Your task to perform on an android device: What's on my calendar tomorrow? Image 0: 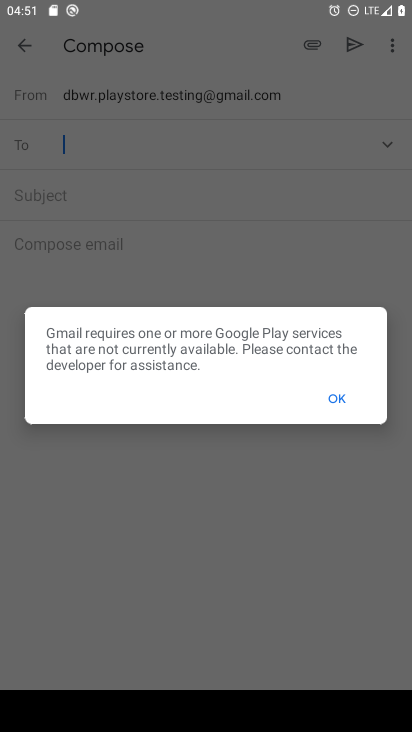
Step 0: press back button
Your task to perform on an android device: What's on my calendar tomorrow? Image 1: 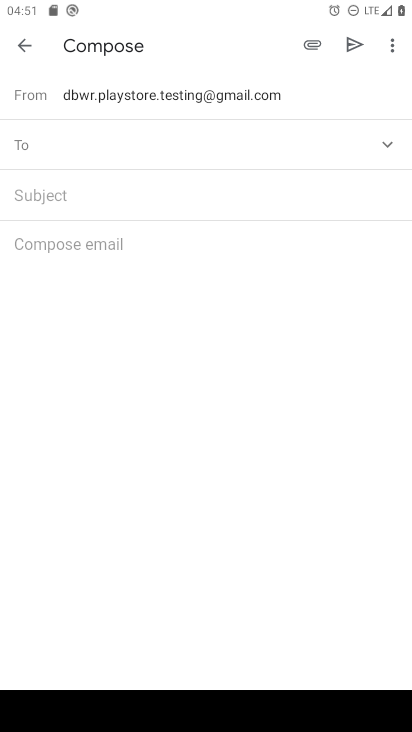
Step 1: press home button
Your task to perform on an android device: What's on my calendar tomorrow? Image 2: 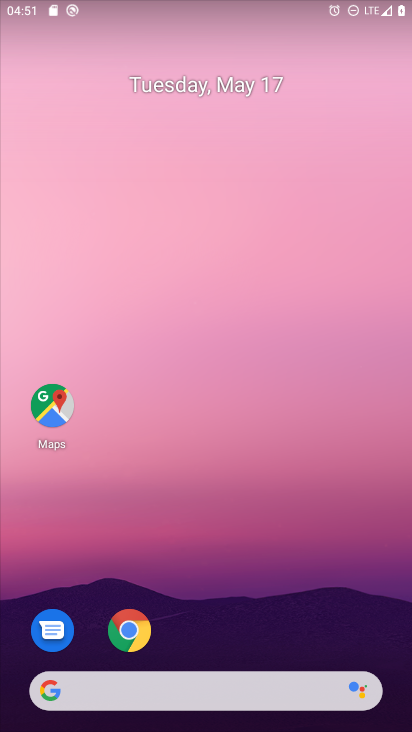
Step 2: drag from (234, 599) to (264, 55)
Your task to perform on an android device: What's on my calendar tomorrow? Image 3: 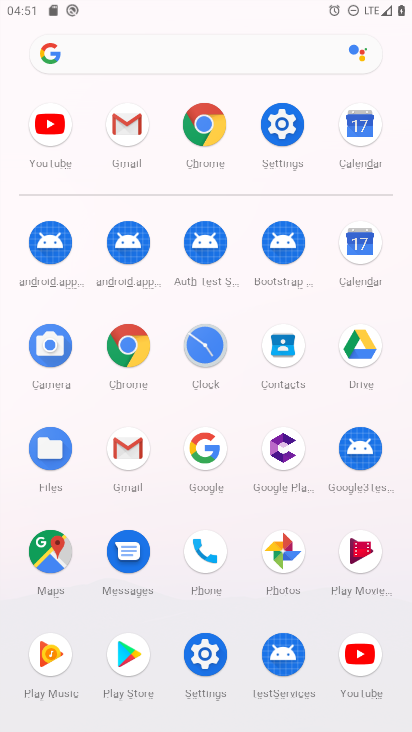
Step 3: click (355, 252)
Your task to perform on an android device: What's on my calendar tomorrow? Image 4: 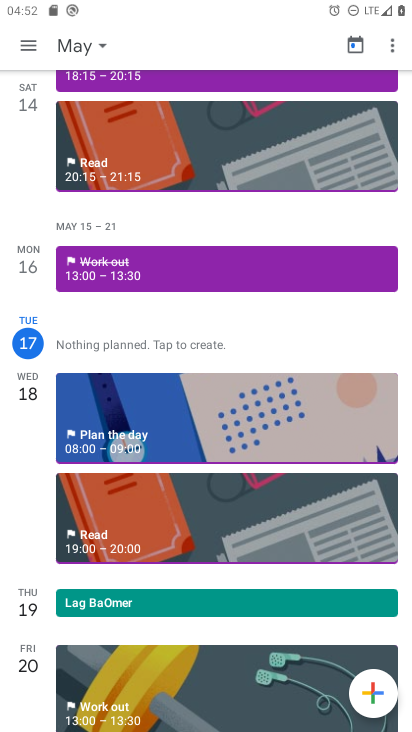
Step 4: click (135, 420)
Your task to perform on an android device: What's on my calendar tomorrow? Image 5: 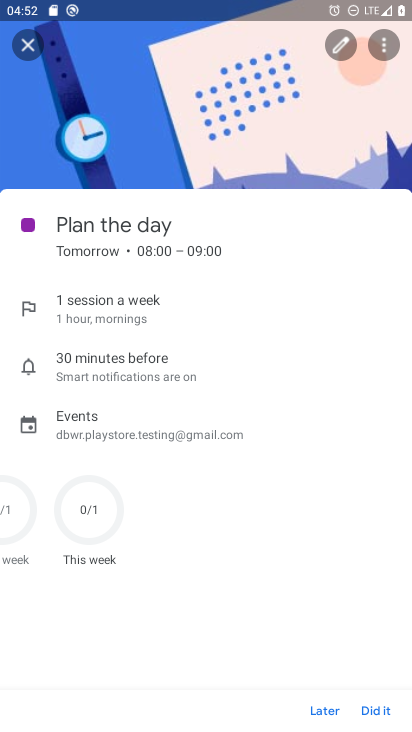
Step 5: task complete